Your task to perform on an android device: Open privacy settings Image 0: 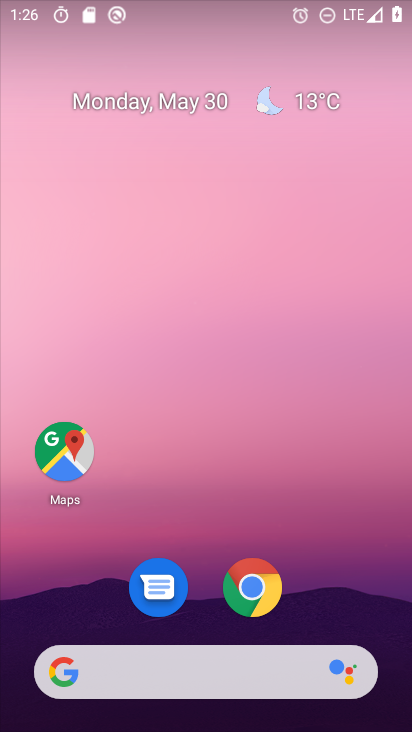
Step 0: drag from (336, 510) to (308, 117)
Your task to perform on an android device: Open privacy settings Image 1: 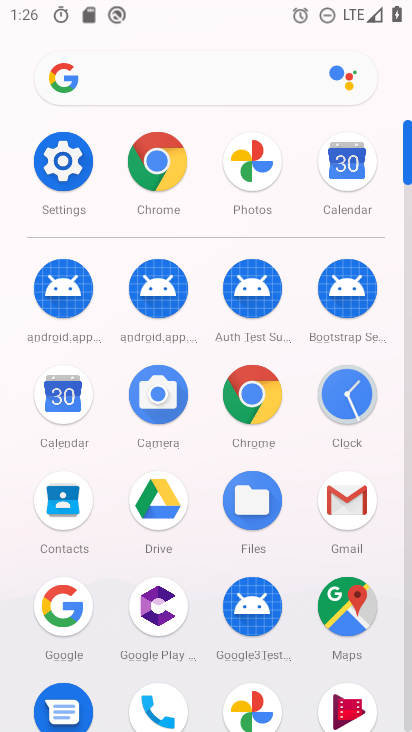
Step 1: click (71, 162)
Your task to perform on an android device: Open privacy settings Image 2: 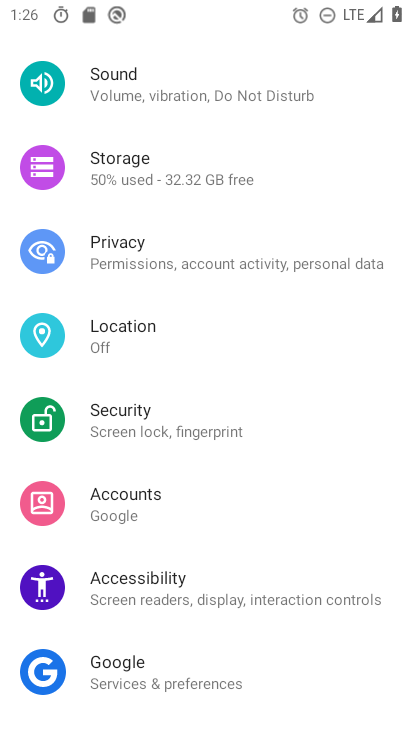
Step 2: click (212, 260)
Your task to perform on an android device: Open privacy settings Image 3: 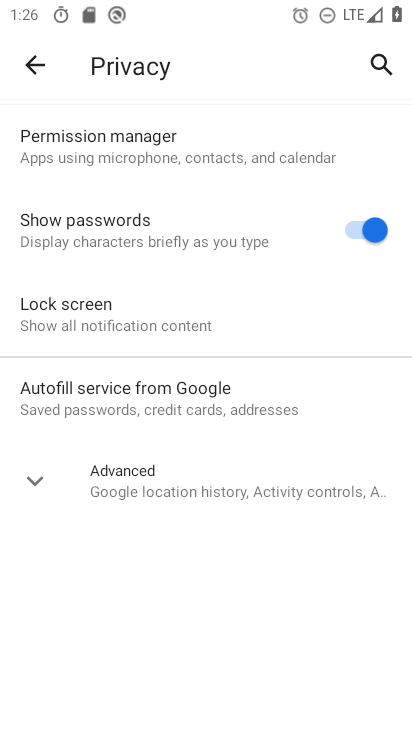
Step 3: task complete